Your task to perform on an android device: Open the phone app and click the voicemail tab. Image 0: 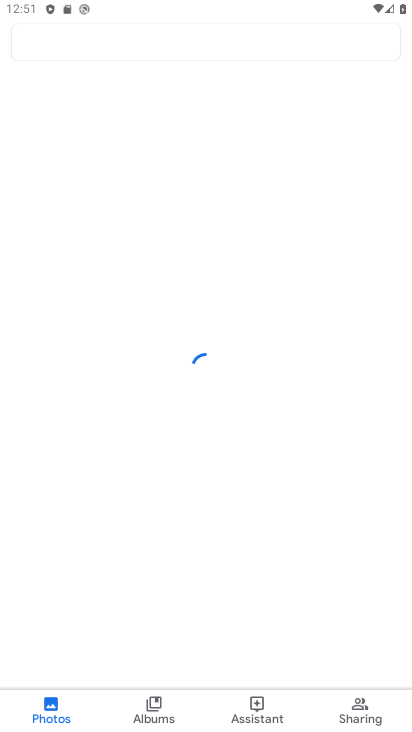
Step 0: press home button
Your task to perform on an android device: Open the phone app and click the voicemail tab. Image 1: 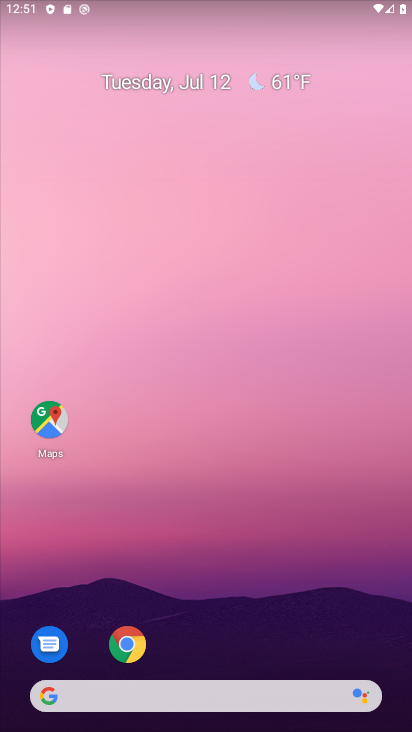
Step 1: drag from (208, 642) to (272, 182)
Your task to perform on an android device: Open the phone app and click the voicemail tab. Image 2: 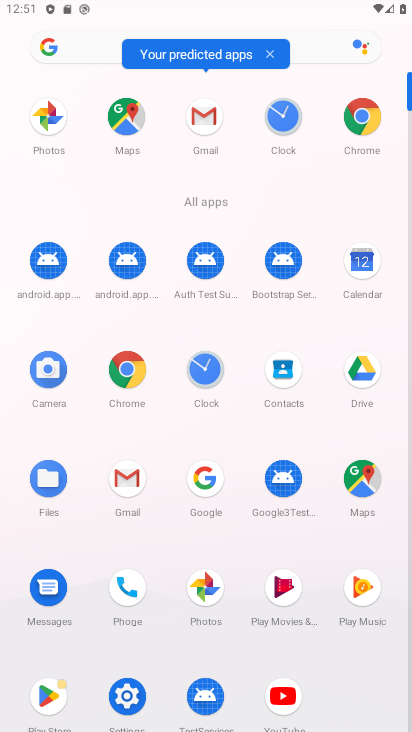
Step 2: click (121, 597)
Your task to perform on an android device: Open the phone app and click the voicemail tab. Image 3: 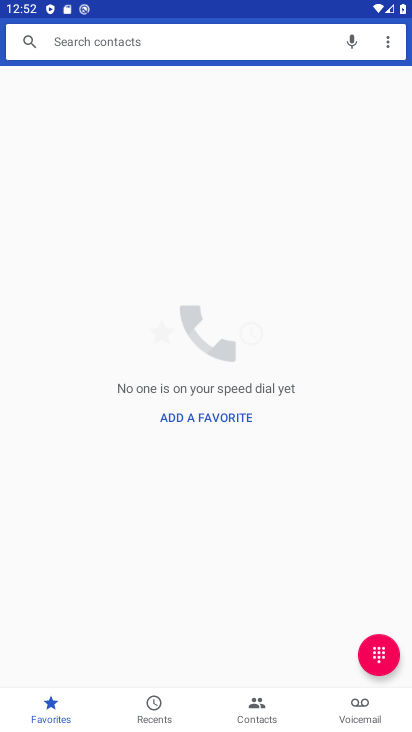
Step 3: click (352, 701)
Your task to perform on an android device: Open the phone app and click the voicemail tab. Image 4: 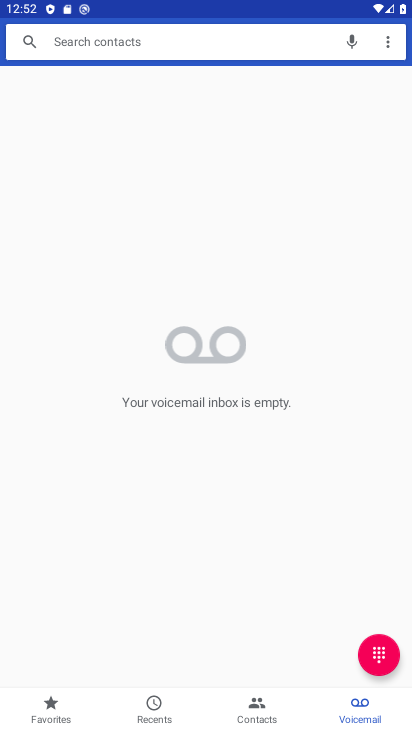
Step 4: task complete